Your task to perform on an android device: What is the recent news? Image 0: 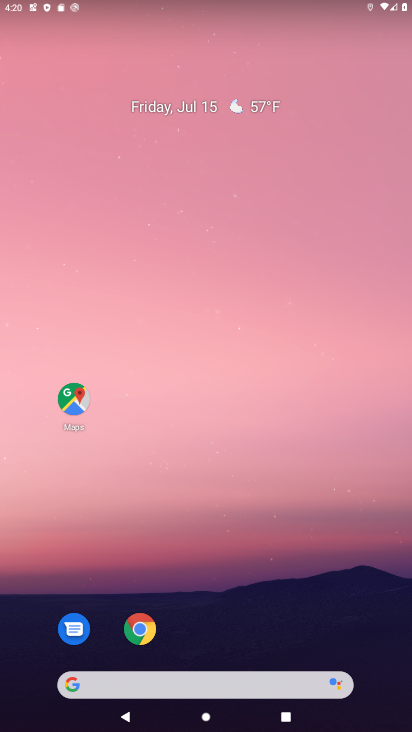
Step 0: press home button
Your task to perform on an android device: What is the recent news? Image 1: 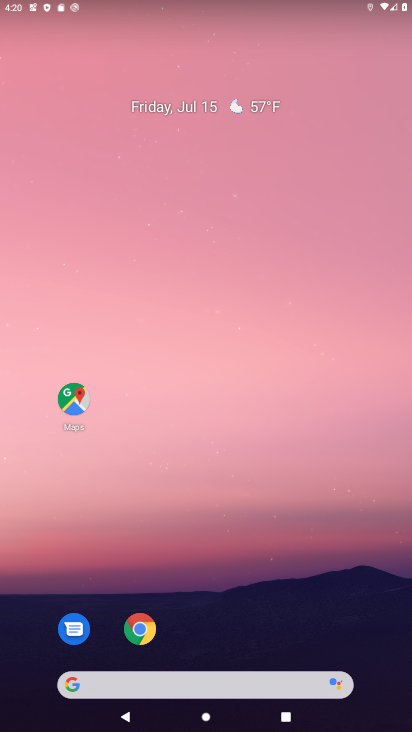
Step 1: click (66, 690)
Your task to perform on an android device: What is the recent news? Image 2: 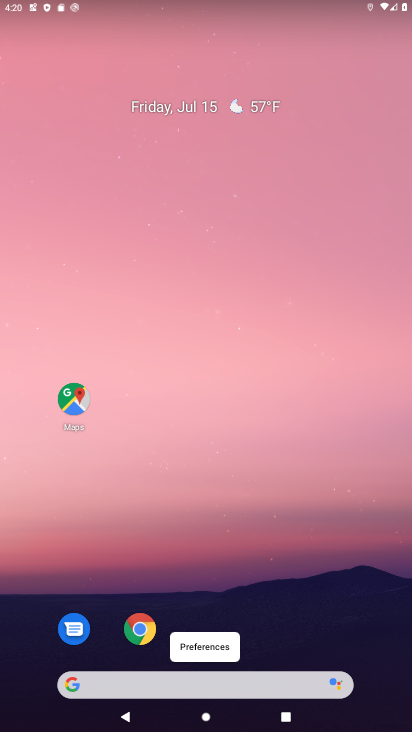
Step 2: click (67, 688)
Your task to perform on an android device: What is the recent news? Image 3: 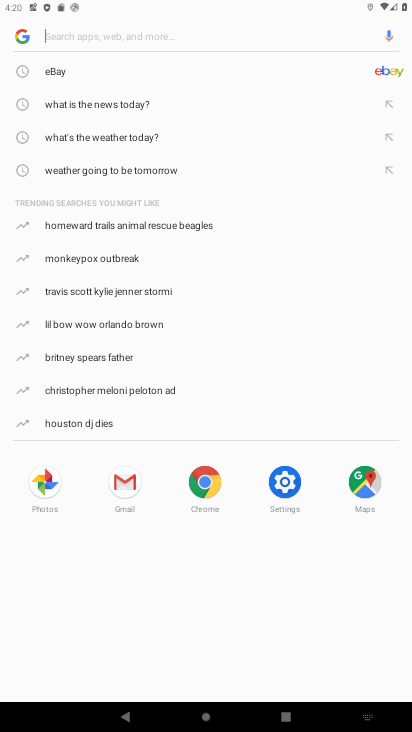
Step 3: type "recent news?"
Your task to perform on an android device: What is the recent news? Image 4: 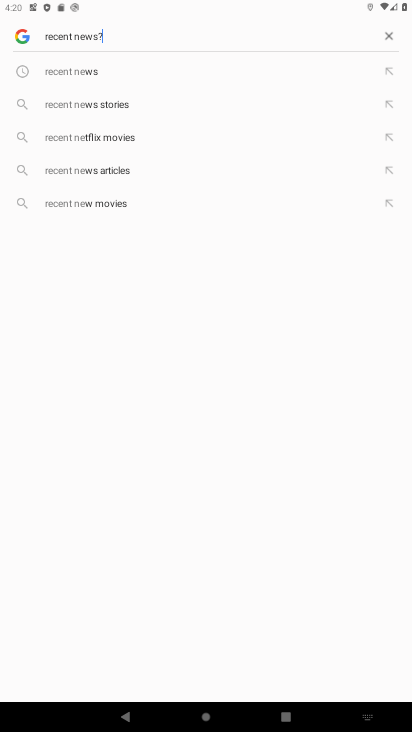
Step 4: press enter
Your task to perform on an android device: What is the recent news? Image 5: 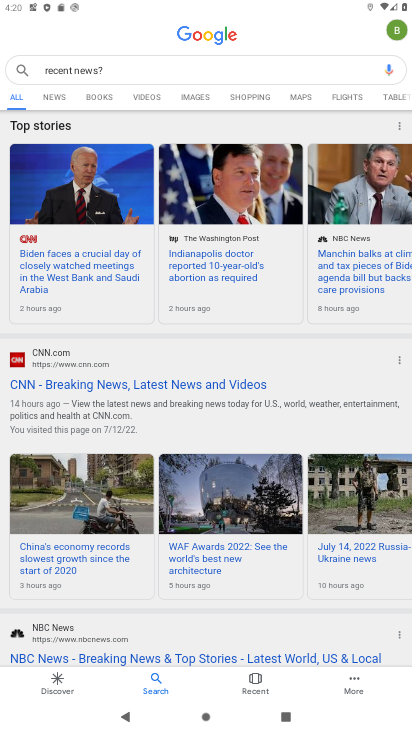
Step 5: task complete